Your task to perform on an android device: Open Yahoo.com Image 0: 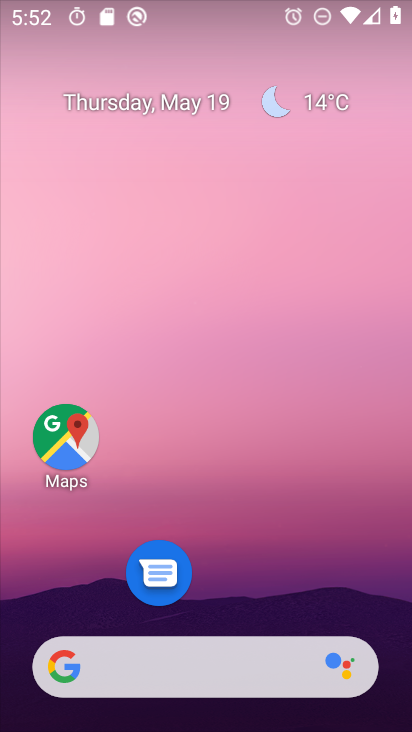
Step 0: drag from (256, 595) to (251, 0)
Your task to perform on an android device: Open Yahoo.com Image 1: 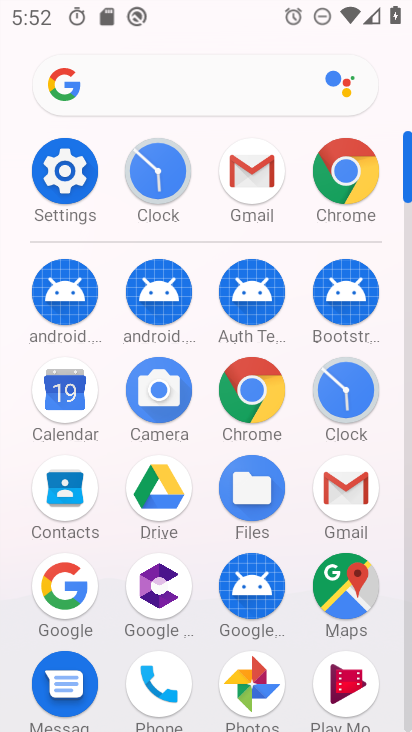
Step 1: click (256, 427)
Your task to perform on an android device: Open Yahoo.com Image 2: 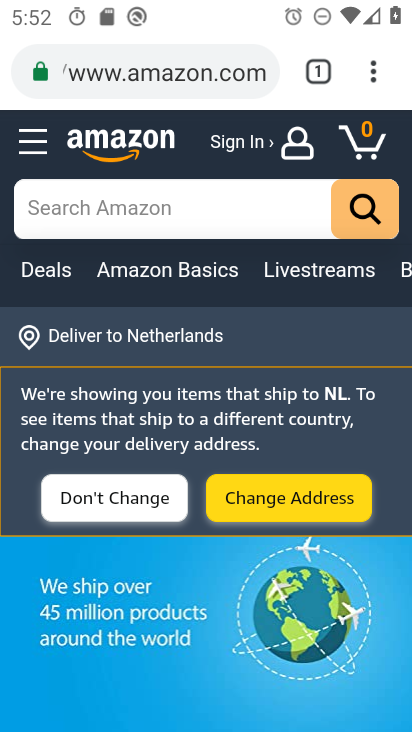
Step 2: press back button
Your task to perform on an android device: Open Yahoo.com Image 3: 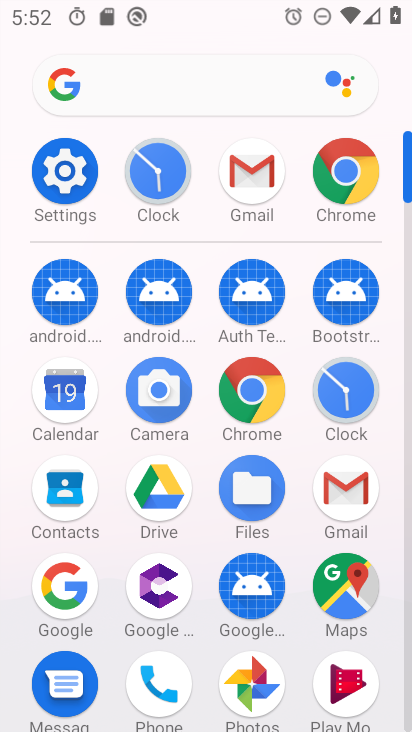
Step 3: click (267, 399)
Your task to perform on an android device: Open Yahoo.com Image 4: 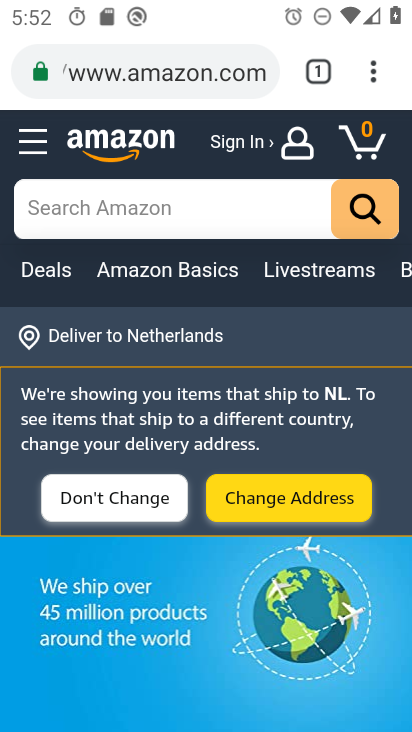
Step 4: click (205, 76)
Your task to perform on an android device: Open Yahoo.com Image 5: 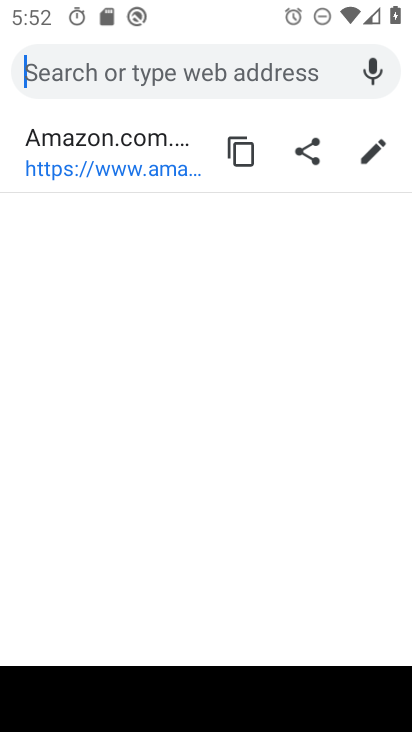
Step 5: type "www.yahoo.com"
Your task to perform on an android device: Open Yahoo.com Image 6: 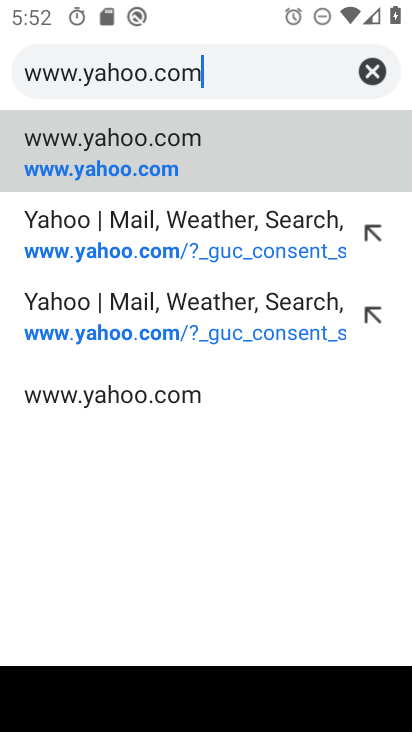
Step 6: click (122, 168)
Your task to perform on an android device: Open Yahoo.com Image 7: 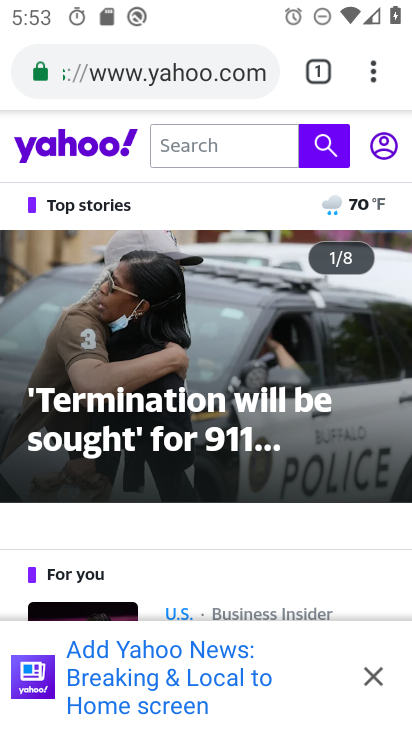
Step 7: task complete